Your task to perform on an android device: Open display settings Image 0: 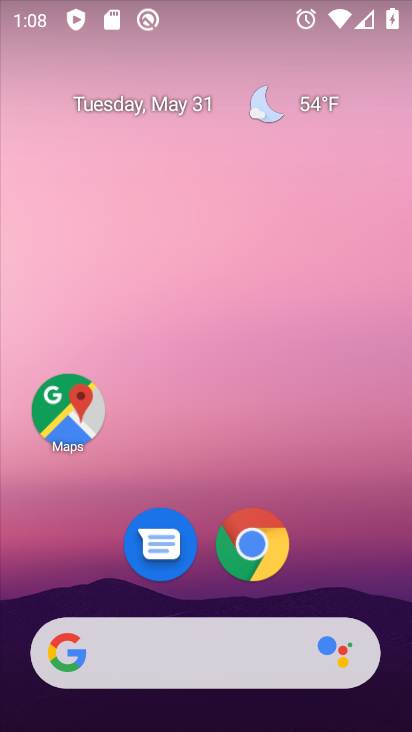
Step 0: drag from (319, 590) to (313, 41)
Your task to perform on an android device: Open display settings Image 1: 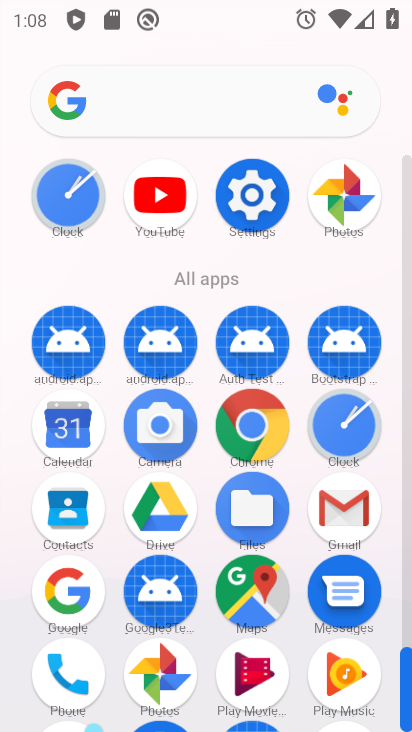
Step 1: click (255, 191)
Your task to perform on an android device: Open display settings Image 2: 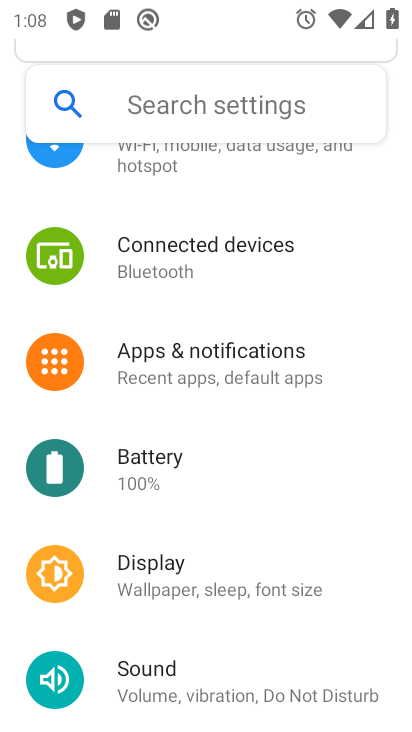
Step 2: click (138, 568)
Your task to perform on an android device: Open display settings Image 3: 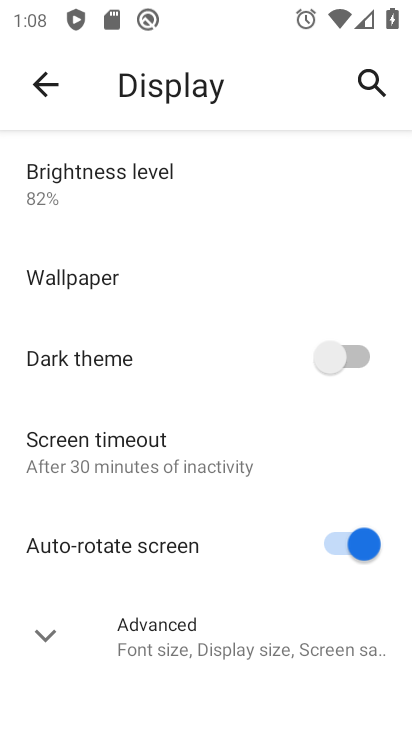
Step 3: task complete